Your task to perform on an android device: Open settings on Google Maps Image 0: 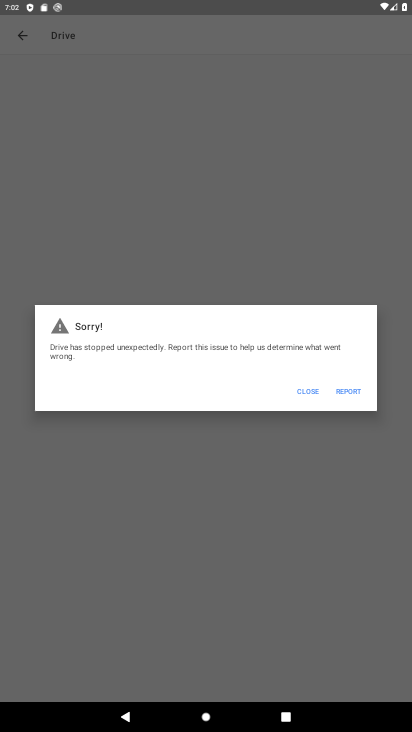
Step 0: press home button
Your task to perform on an android device: Open settings on Google Maps Image 1: 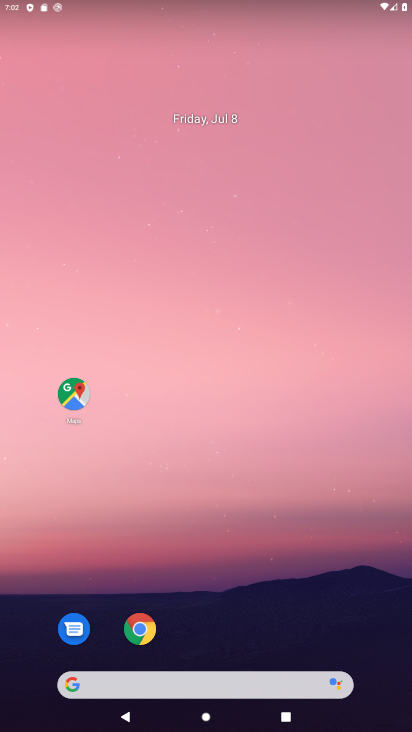
Step 1: click (70, 379)
Your task to perform on an android device: Open settings on Google Maps Image 2: 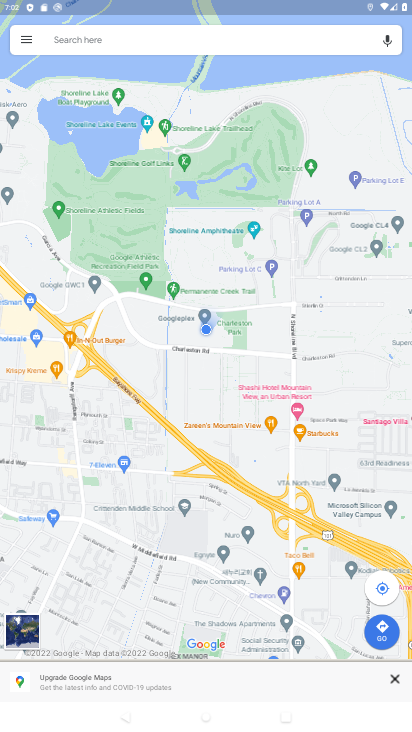
Step 2: click (25, 37)
Your task to perform on an android device: Open settings on Google Maps Image 3: 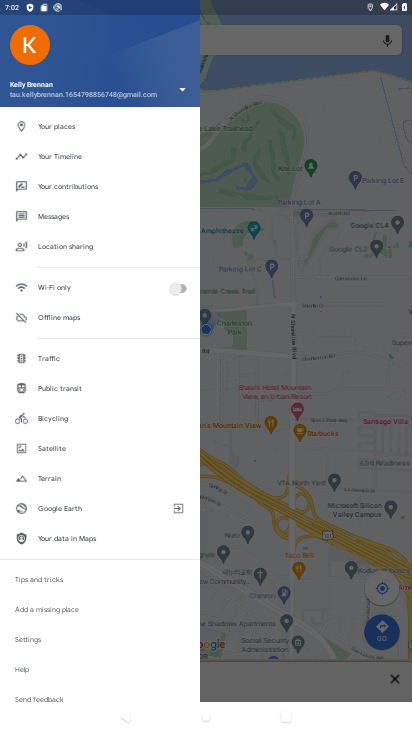
Step 3: click (42, 635)
Your task to perform on an android device: Open settings on Google Maps Image 4: 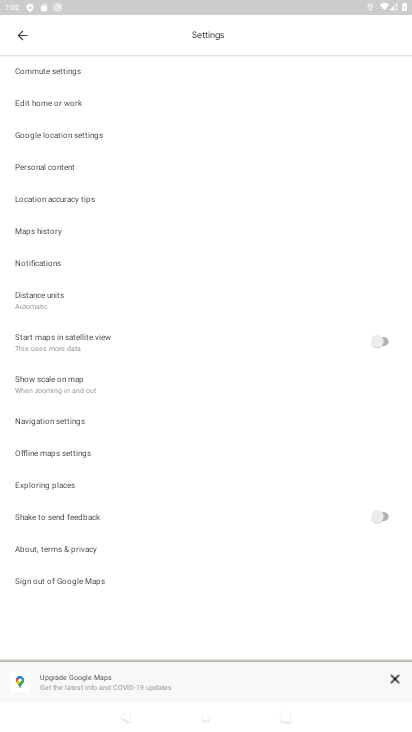
Step 4: task complete